Your task to perform on an android device: Go to notification settings Image 0: 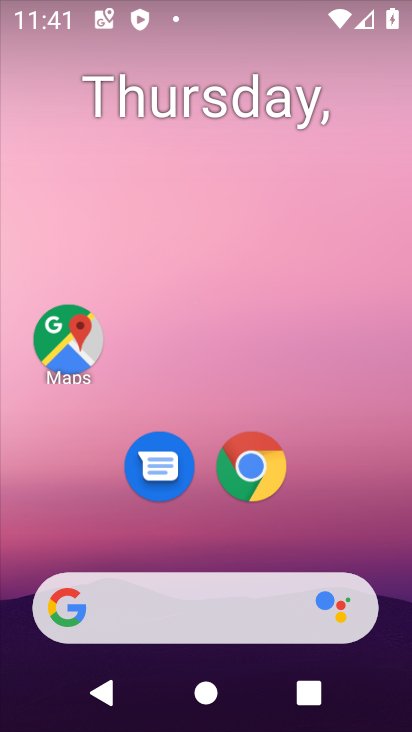
Step 0: drag from (392, 625) to (319, 1)
Your task to perform on an android device: Go to notification settings Image 1: 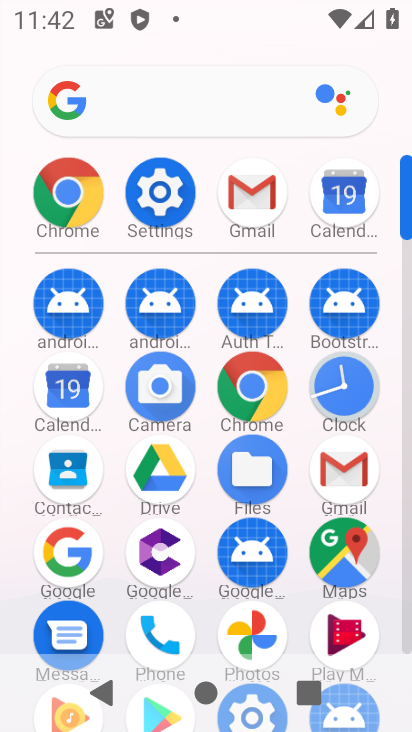
Step 1: click (167, 173)
Your task to perform on an android device: Go to notification settings Image 2: 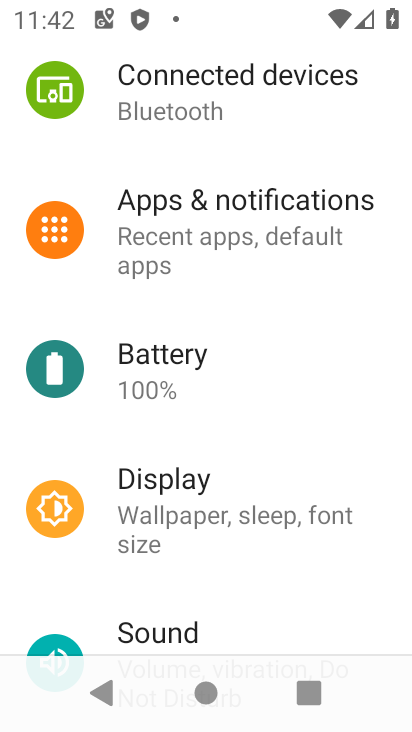
Step 2: click (245, 254)
Your task to perform on an android device: Go to notification settings Image 3: 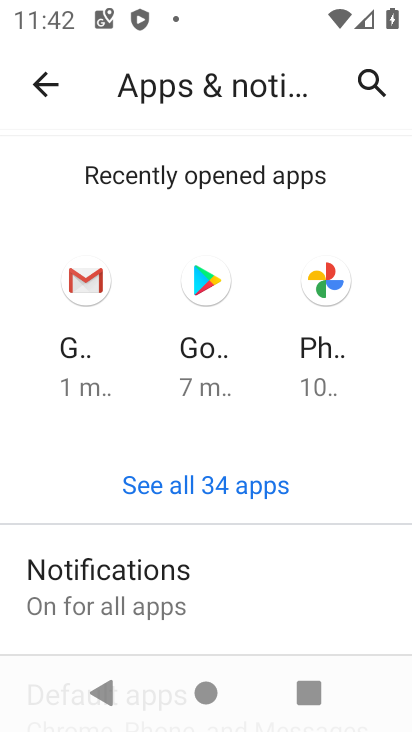
Step 3: click (237, 585)
Your task to perform on an android device: Go to notification settings Image 4: 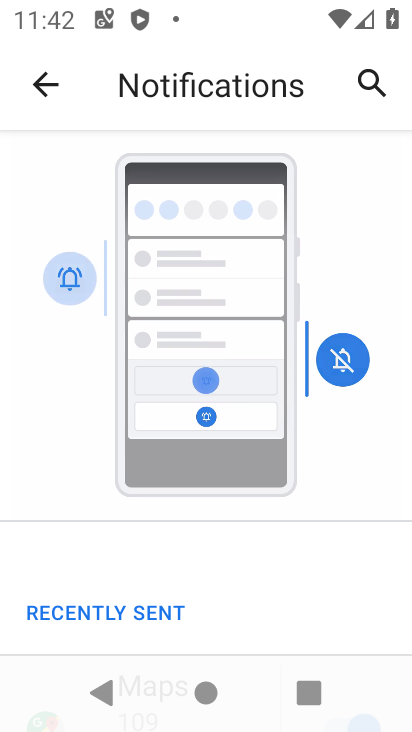
Step 4: task complete